Your task to perform on an android device: delete location history Image 0: 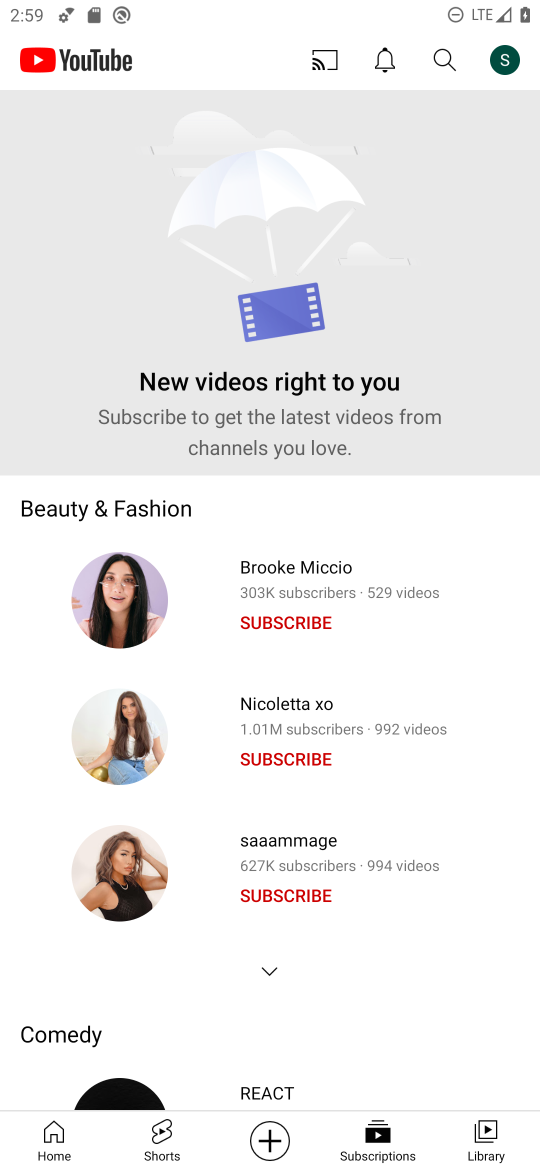
Step 0: press home button
Your task to perform on an android device: delete location history Image 1: 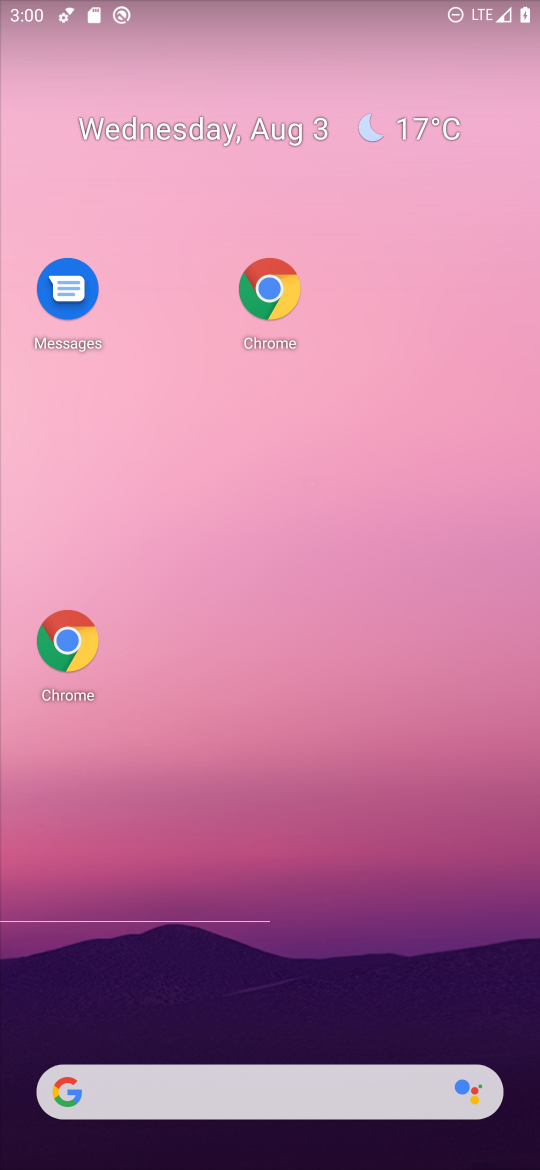
Step 1: drag from (402, 995) to (503, 56)
Your task to perform on an android device: delete location history Image 2: 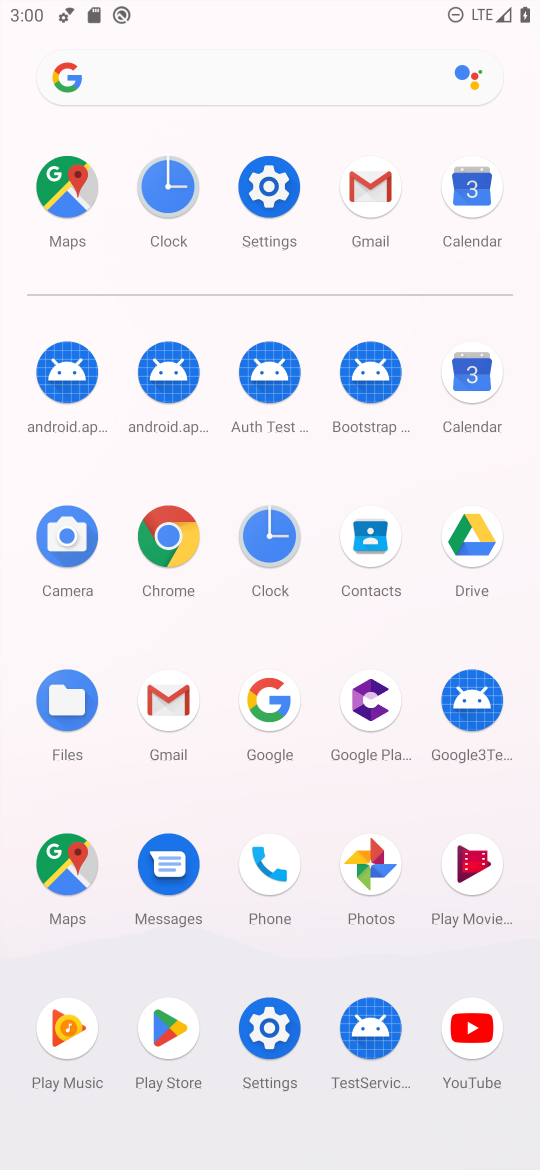
Step 2: click (269, 1056)
Your task to perform on an android device: delete location history Image 3: 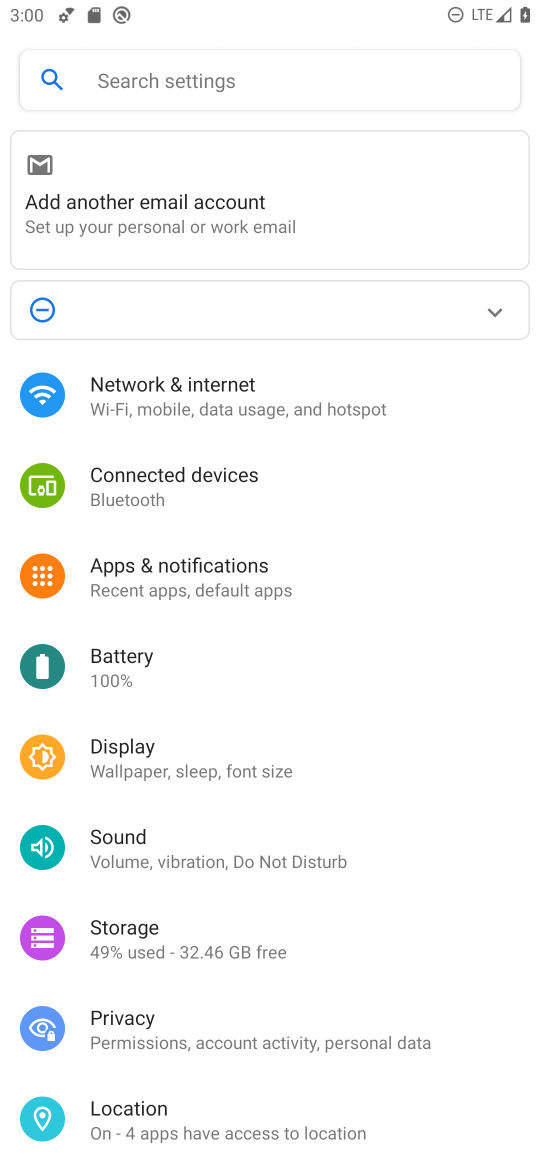
Step 3: click (223, 1101)
Your task to perform on an android device: delete location history Image 4: 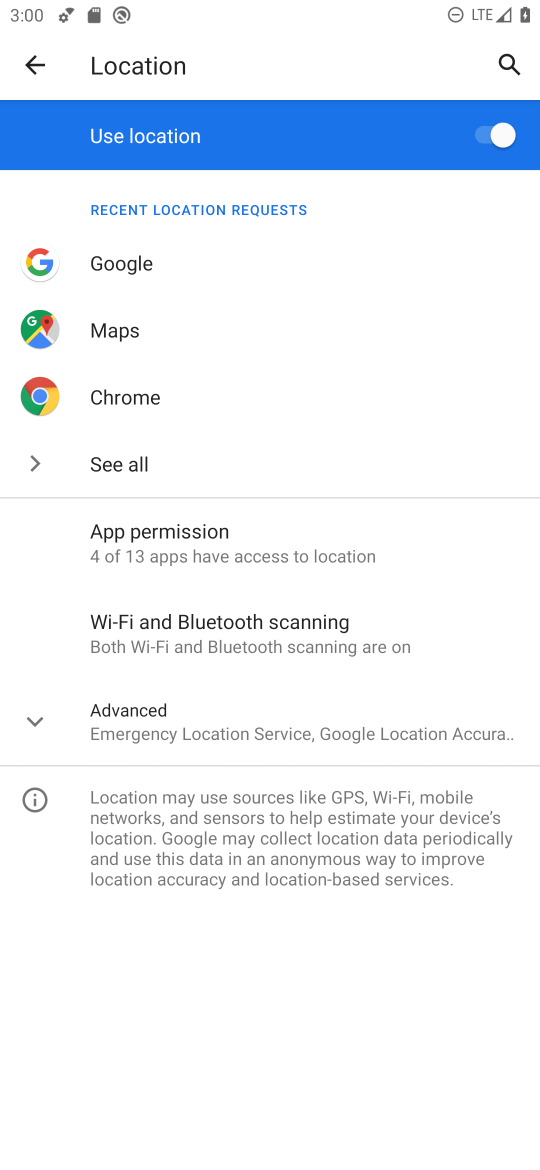
Step 4: task complete